Your task to perform on an android device: delete the emails in spam in the gmail app Image 0: 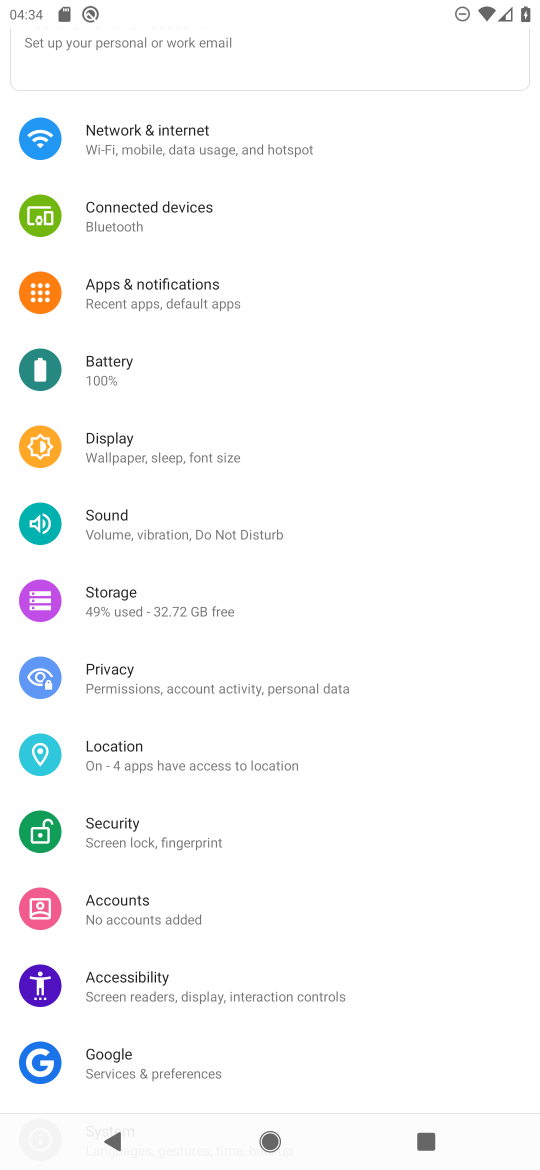
Step 0: press home button
Your task to perform on an android device: delete the emails in spam in the gmail app Image 1: 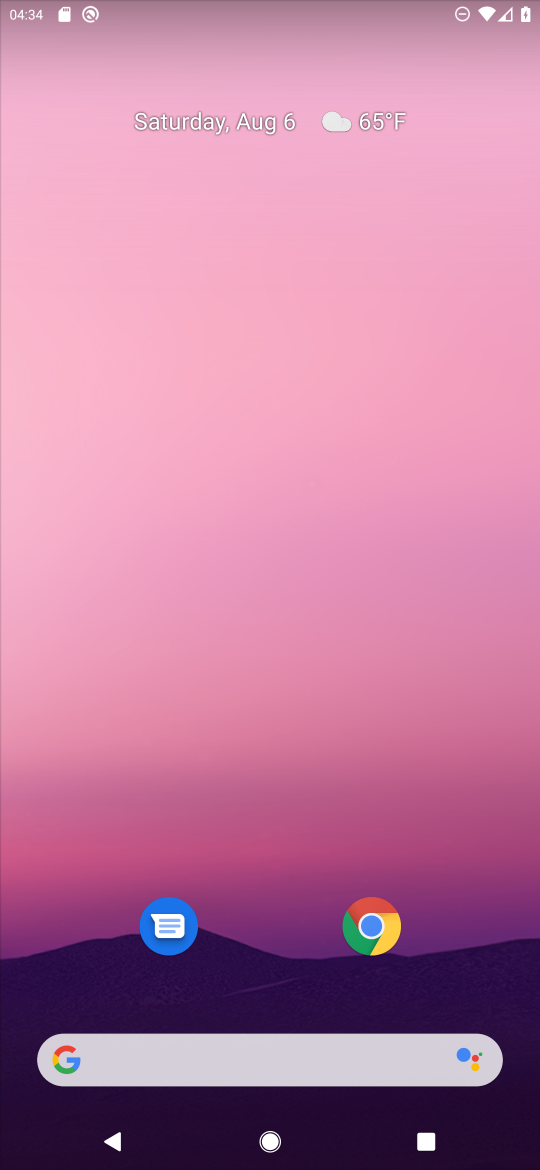
Step 1: drag from (245, 706) to (228, 304)
Your task to perform on an android device: delete the emails in spam in the gmail app Image 2: 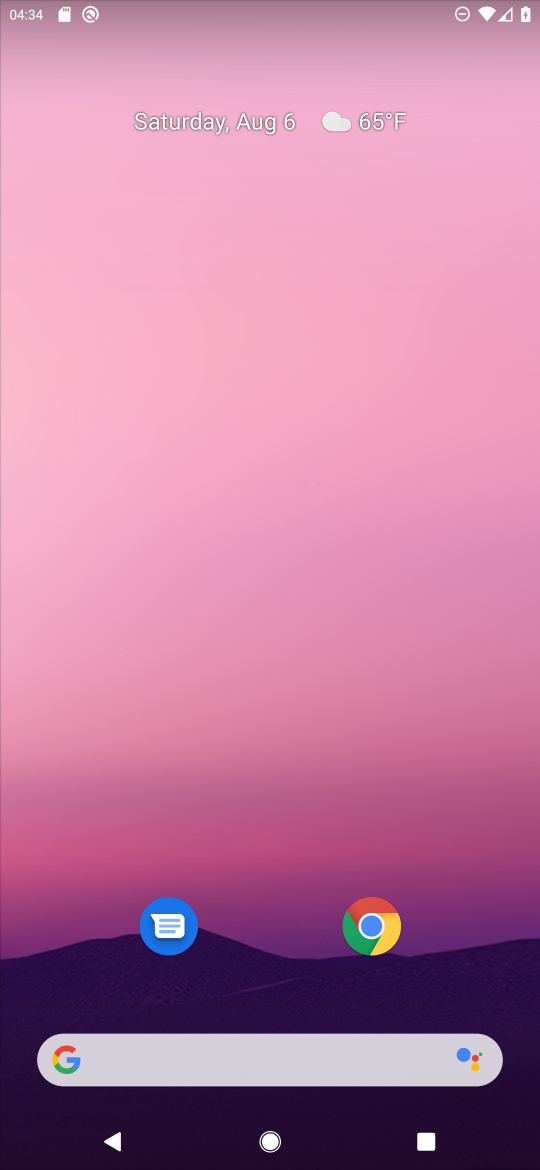
Step 2: drag from (276, 923) to (270, 296)
Your task to perform on an android device: delete the emails in spam in the gmail app Image 3: 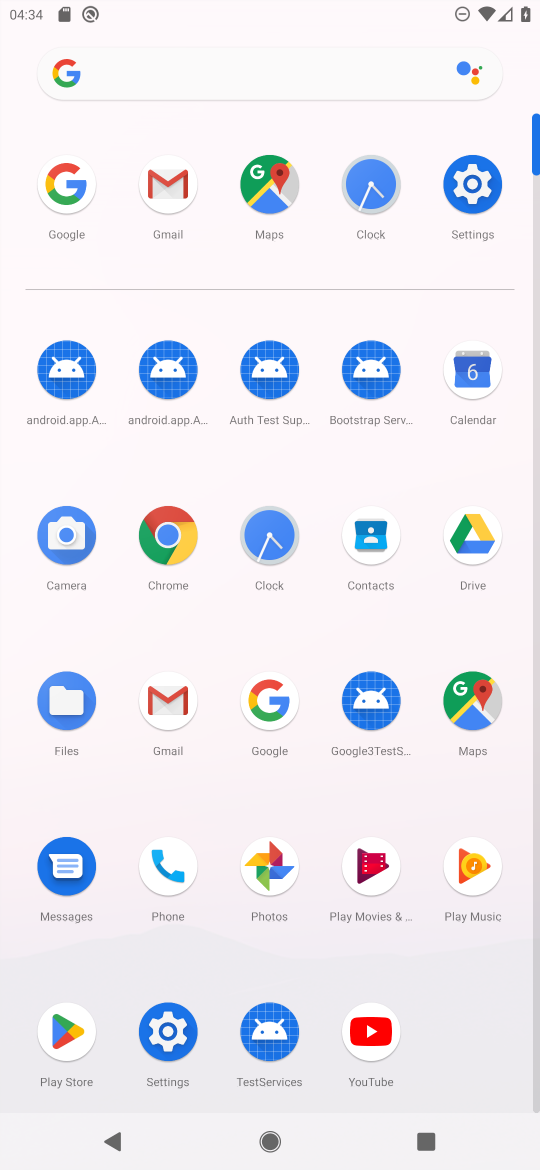
Step 3: click (186, 200)
Your task to perform on an android device: delete the emails in spam in the gmail app Image 4: 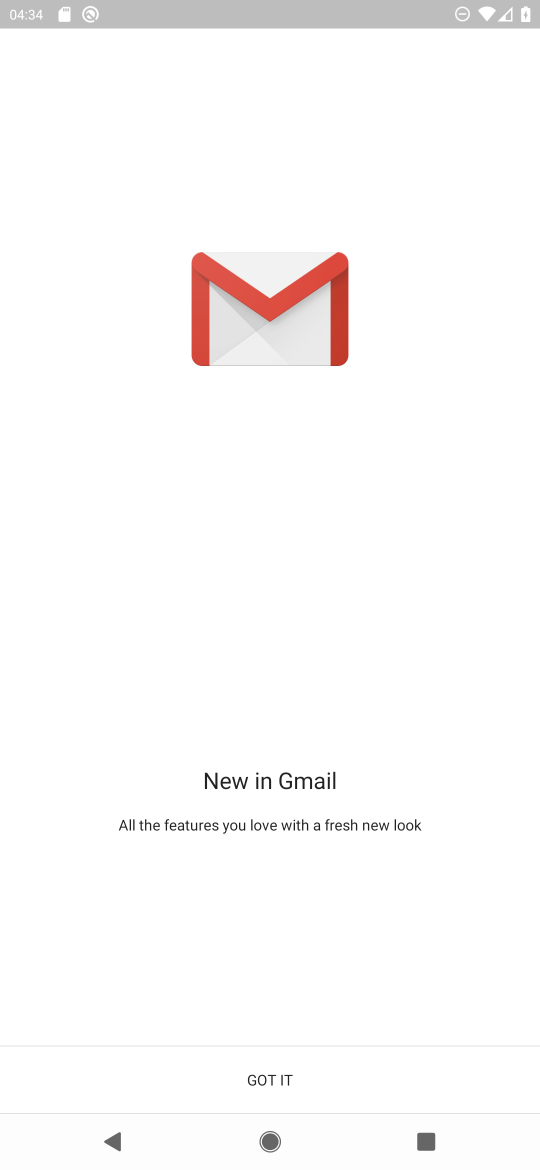
Step 4: click (273, 1078)
Your task to perform on an android device: delete the emails in spam in the gmail app Image 5: 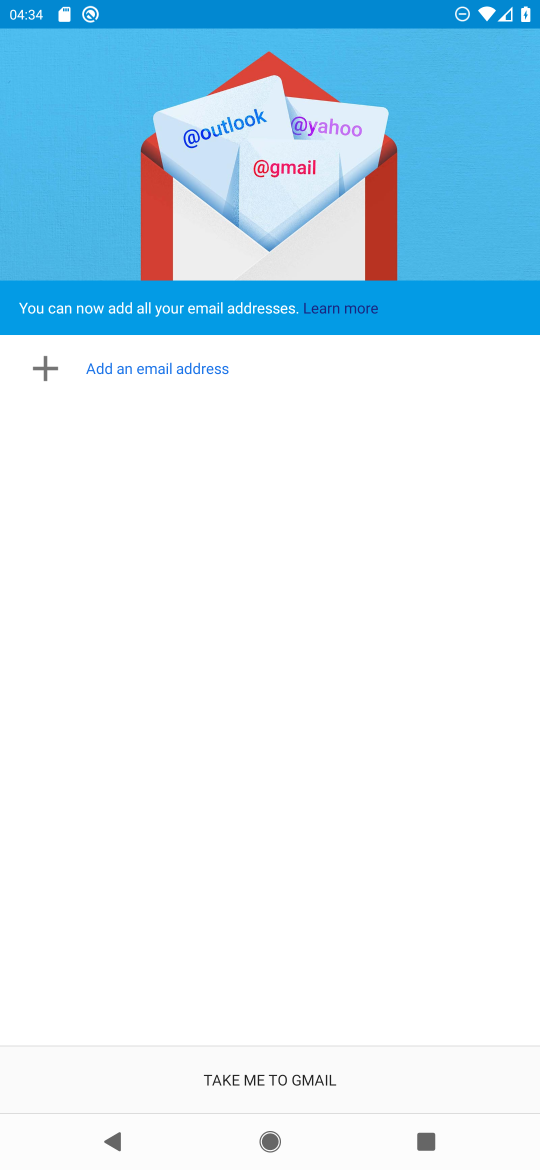
Step 5: task complete